Your task to perform on an android device: Go to Reddit.com Image 0: 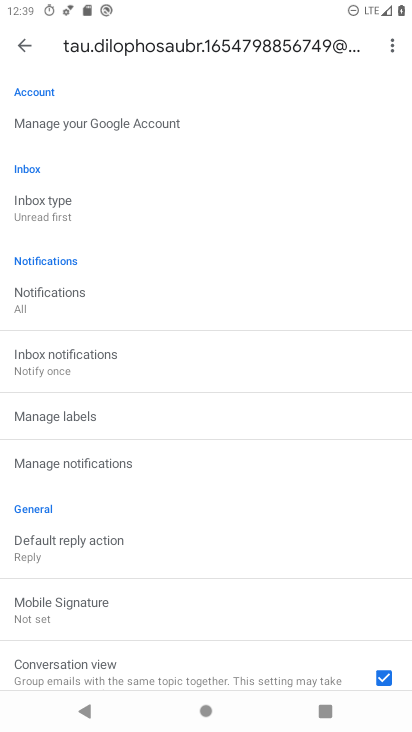
Step 0: press home button
Your task to perform on an android device: Go to Reddit.com Image 1: 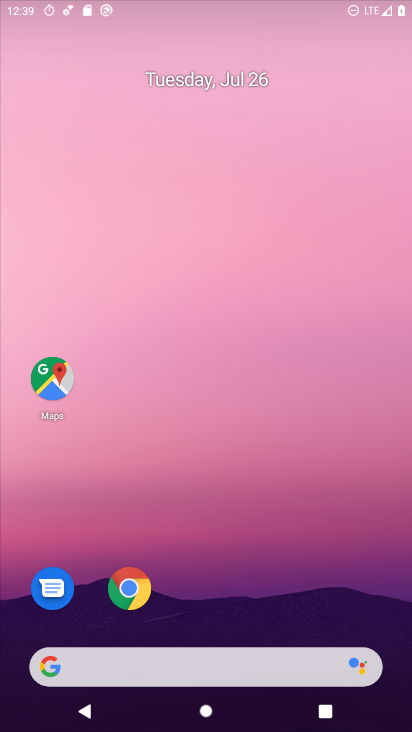
Step 1: drag from (204, 581) to (222, 129)
Your task to perform on an android device: Go to Reddit.com Image 2: 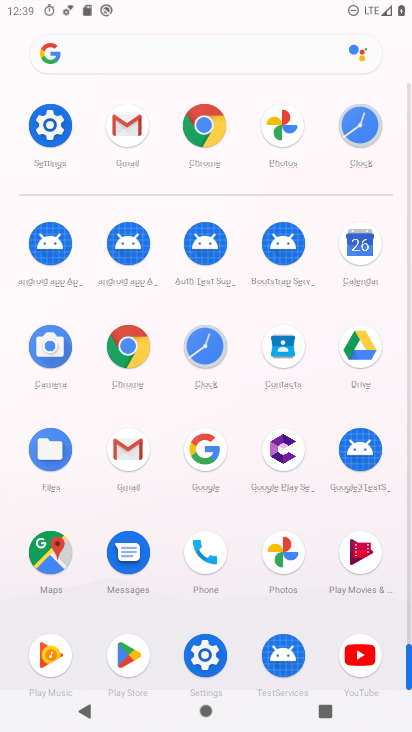
Step 2: click (125, 362)
Your task to perform on an android device: Go to Reddit.com Image 3: 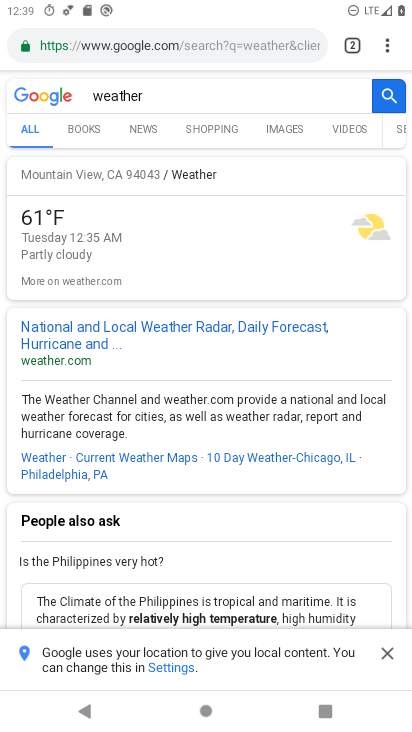
Step 3: click (242, 101)
Your task to perform on an android device: Go to Reddit.com Image 4: 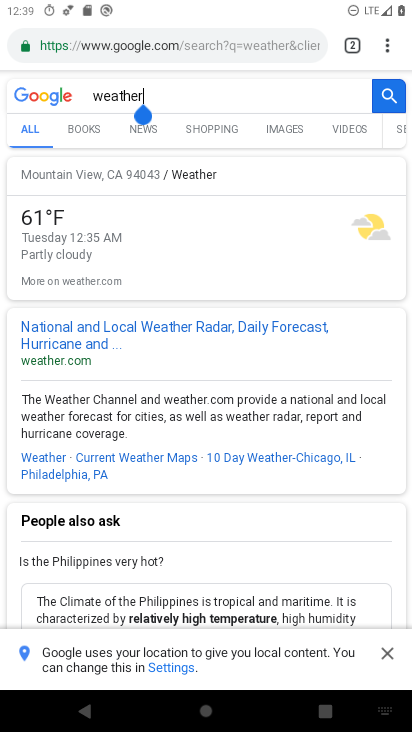
Step 4: click (360, 46)
Your task to perform on an android device: Go to Reddit.com Image 5: 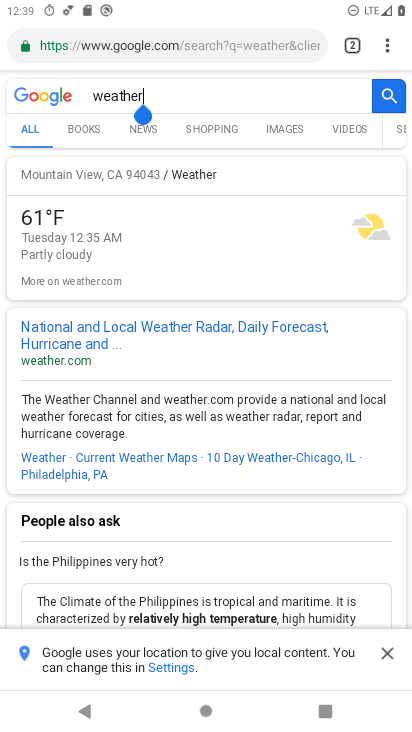
Step 5: click (350, 48)
Your task to perform on an android device: Go to Reddit.com Image 6: 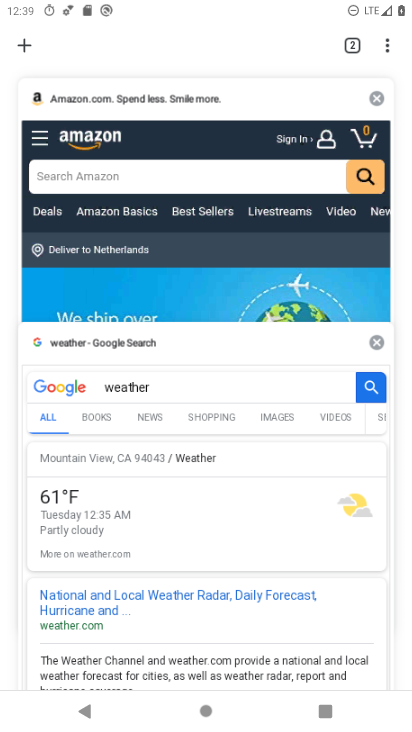
Step 6: click (22, 53)
Your task to perform on an android device: Go to Reddit.com Image 7: 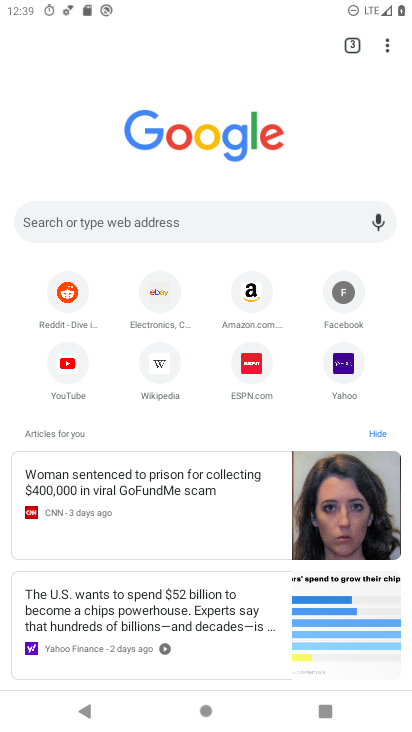
Step 7: click (127, 216)
Your task to perform on an android device: Go to Reddit.com Image 8: 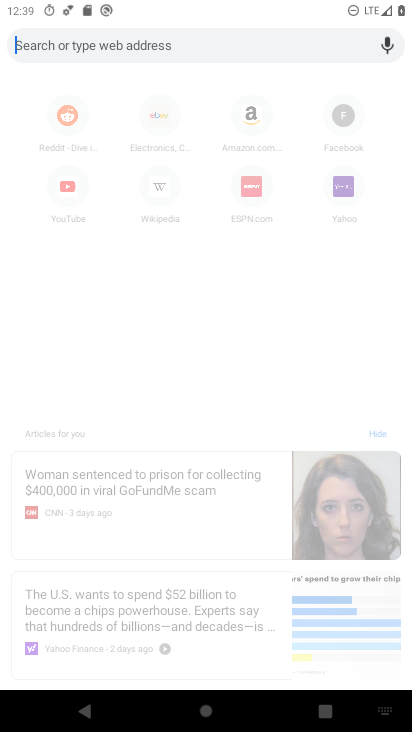
Step 8: click (99, 43)
Your task to perform on an android device: Go to Reddit.com Image 9: 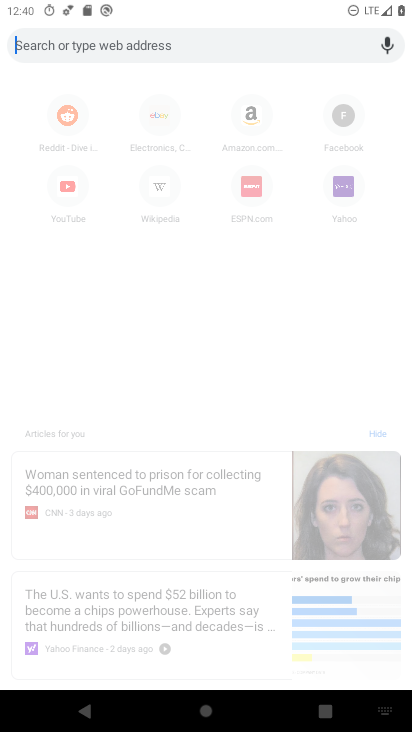
Step 9: type "Reddit.com"
Your task to perform on an android device: Go to Reddit.com Image 10: 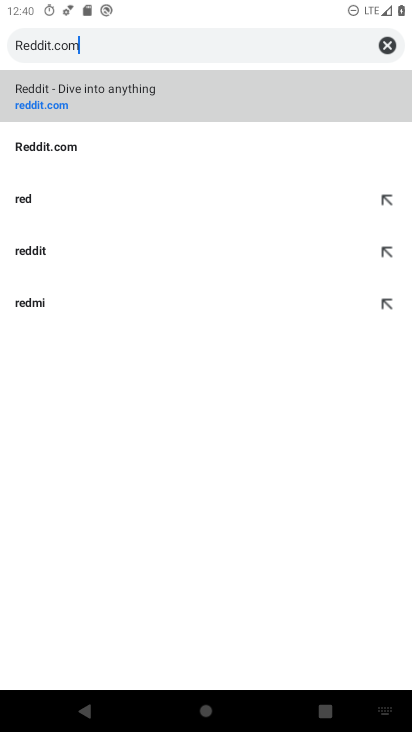
Step 10: type ""
Your task to perform on an android device: Go to Reddit.com Image 11: 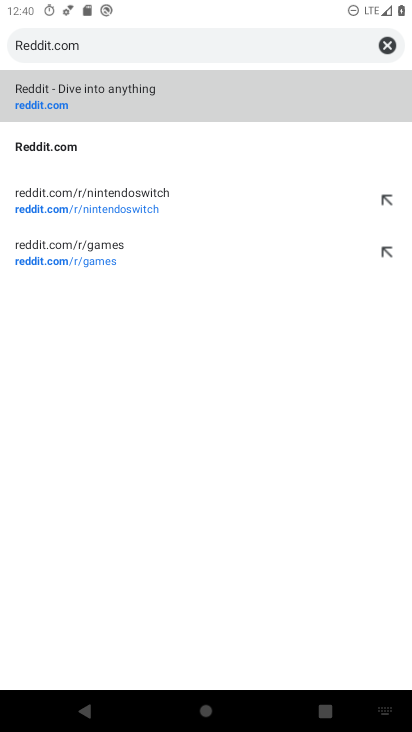
Step 11: click (121, 107)
Your task to perform on an android device: Go to Reddit.com Image 12: 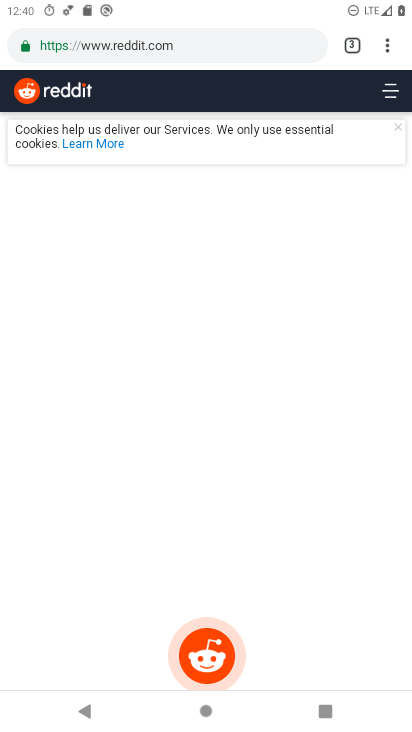
Step 12: drag from (289, 474) to (288, 196)
Your task to perform on an android device: Go to Reddit.com Image 13: 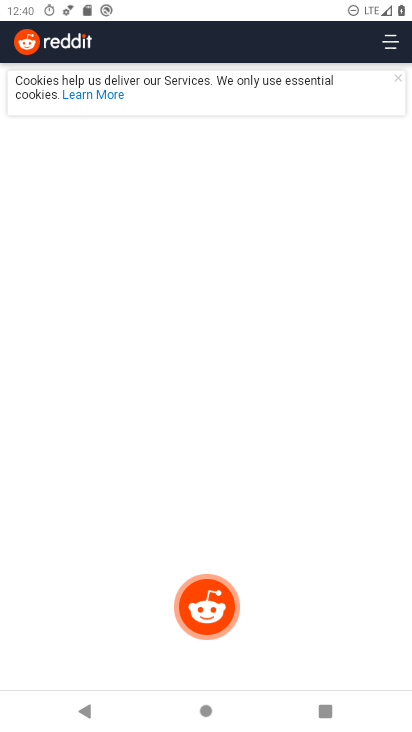
Step 13: drag from (256, 412) to (277, 604)
Your task to perform on an android device: Go to Reddit.com Image 14: 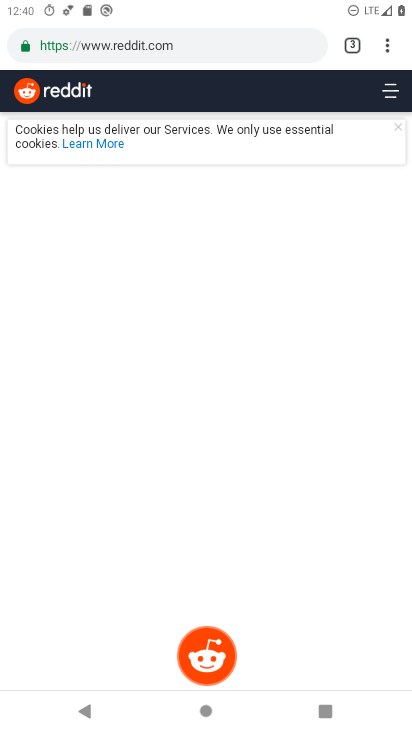
Step 14: click (212, 665)
Your task to perform on an android device: Go to Reddit.com Image 15: 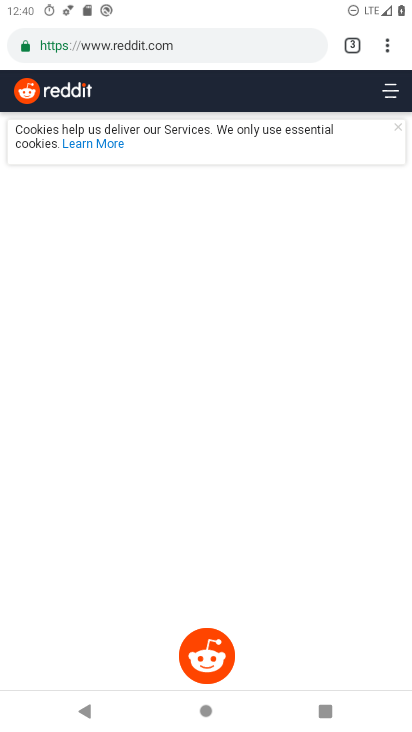
Step 15: click (208, 658)
Your task to perform on an android device: Go to Reddit.com Image 16: 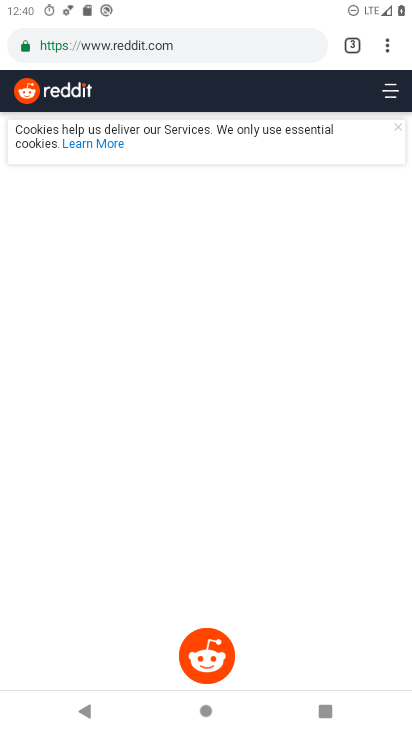
Step 16: click (400, 120)
Your task to perform on an android device: Go to Reddit.com Image 17: 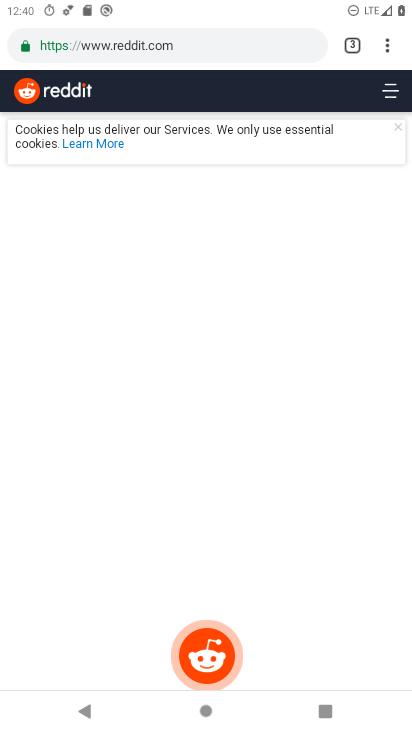
Step 17: click (395, 124)
Your task to perform on an android device: Go to Reddit.com Image 18: 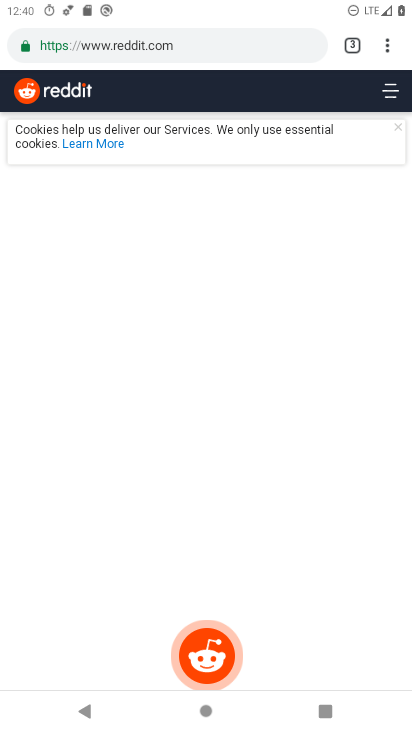
Step 18: click (397, 89)
Your task to perform on an android device: Go to Reddit.com Image 19: 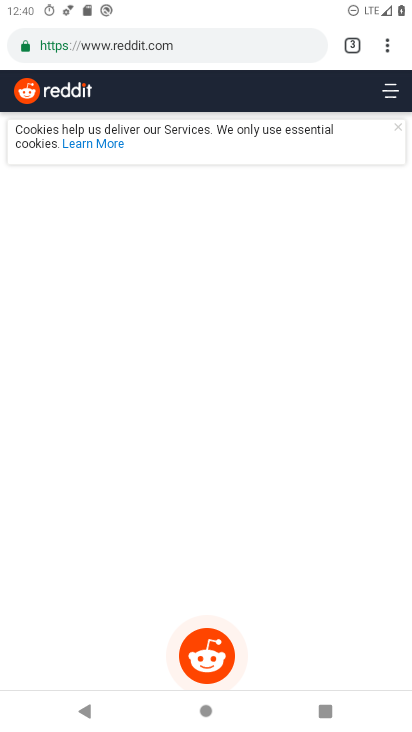
Step 19: task complete